Your task to perform on an android device: Open settings on Google Maps Image 0: 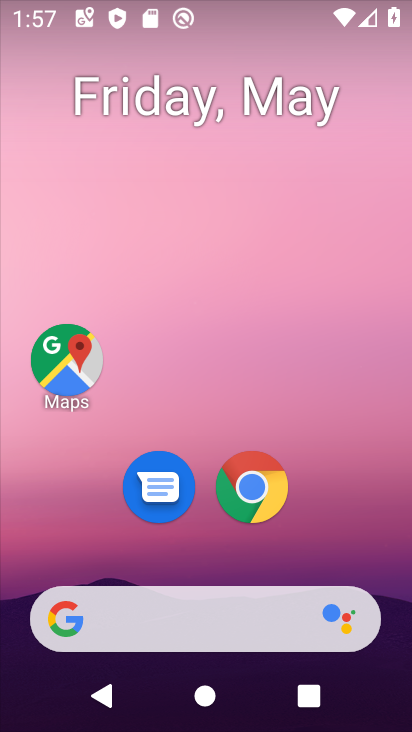
Step 0: click (66, 361)
Your task to perform on an android device: Open settings on Google Maps Image 1: 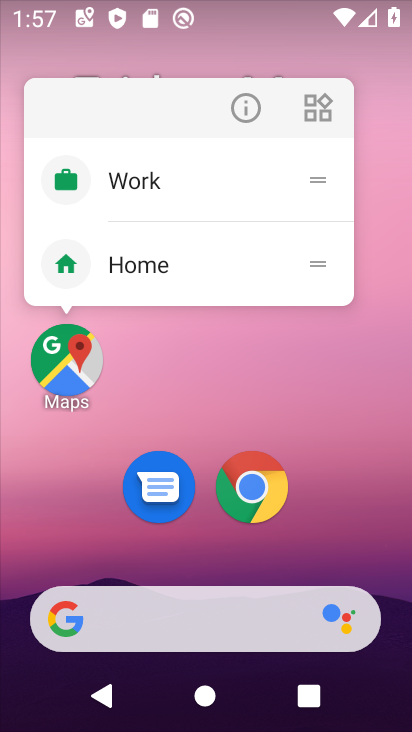
Step 1: click (66, 360)
Your task to perform on an android device: Open settings on Google Maps Image 2: 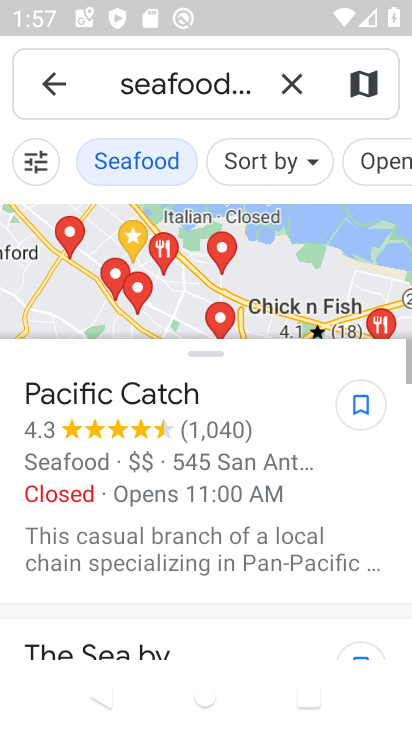
Step 2: click (56, 77)
Your task to perform on an android device: Open settings on Google Maps Image 3: 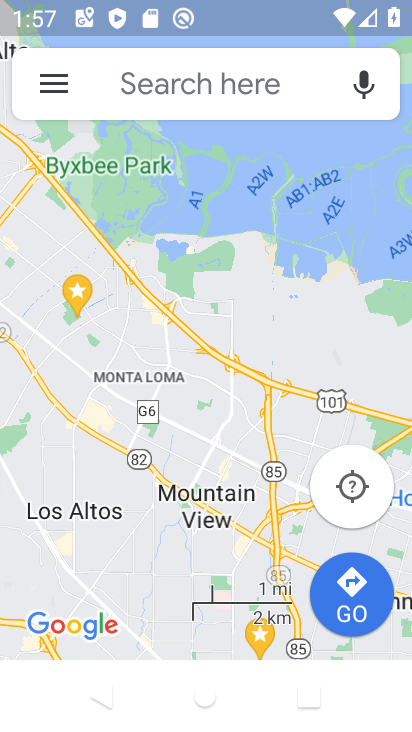
Step 3: click (56, 85)
Your task to perform on an android device: Open settings on Google Maps Image 4: 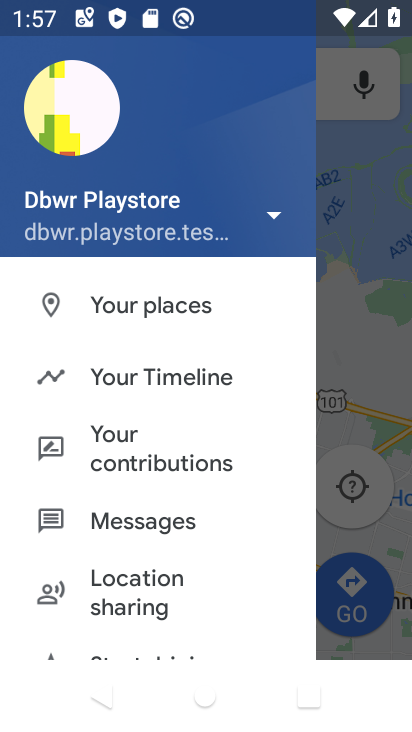
Step 4: drag from (211, 583) to (213, 175)
Your task to perform on an android device: Open settings on Google Maps Image 5: 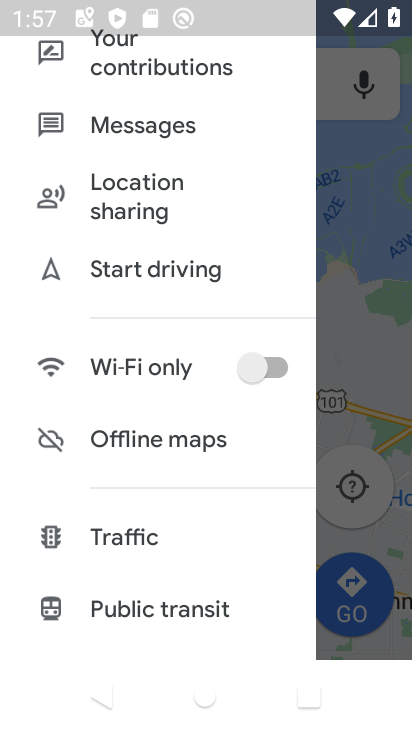
Step 5: drag from (157, 525) to (150, 228)
Your task to perform on an android device: Open settings on Google Maps Image 6: 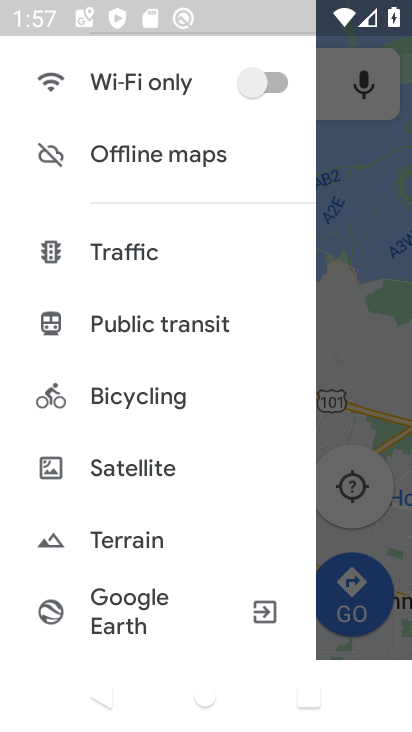
Step 6: drag from (134, 549) to (139, 180)
Your task to perform on an android device: Open settings on Google Maps Image 7: 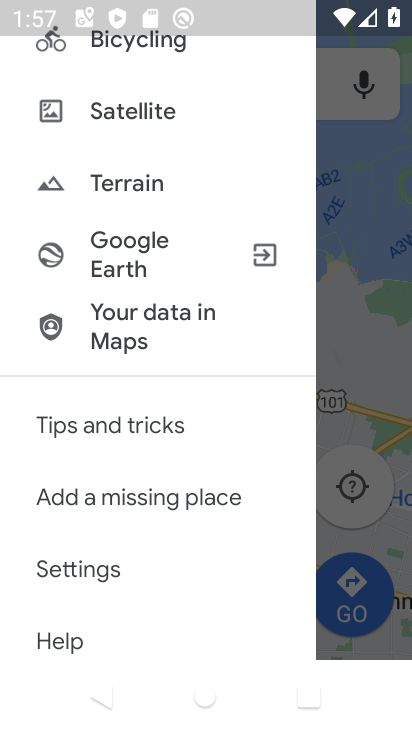
Step 7: click (102, 576)
Your task to perform on an android device: Open settings on Google Maps Image 8: 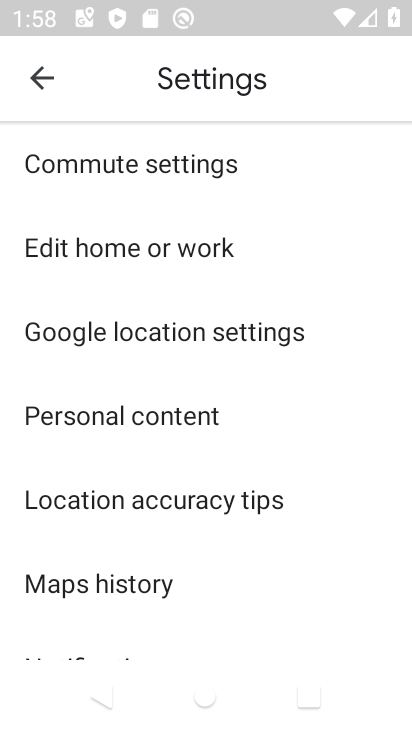
Step 8: task complete